Your task to perform on an android device: add a contact Image 0: 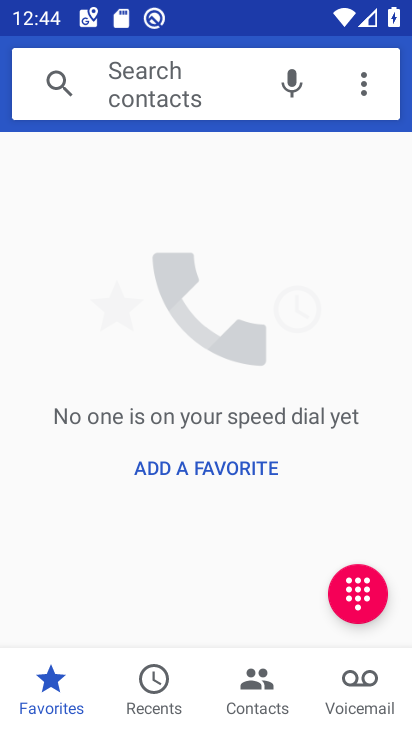
Step 0: press home button
Your task to perform on an android device: add a contact Image 1: 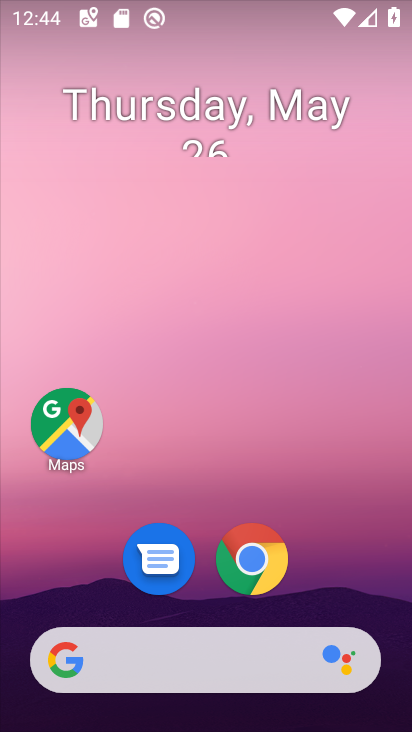
Step 1: drag from (326, 610) to (316, 90)
Your task to perform on an android device: add a contact Image 2: 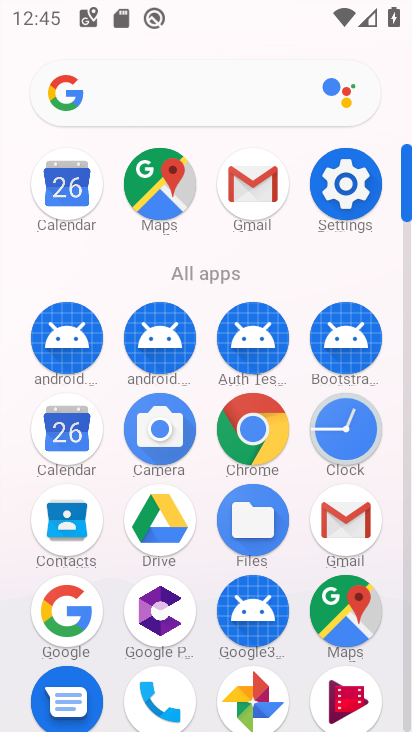
Step 2: click (54, 529)
Your task to perform on an android device: add a contact Image 3: 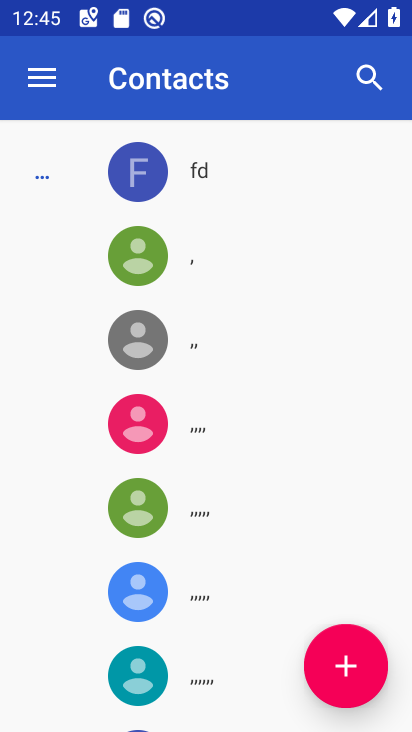
Step 3: click (350, 679)
Your task to perform on an android device: add a contact Image 4: 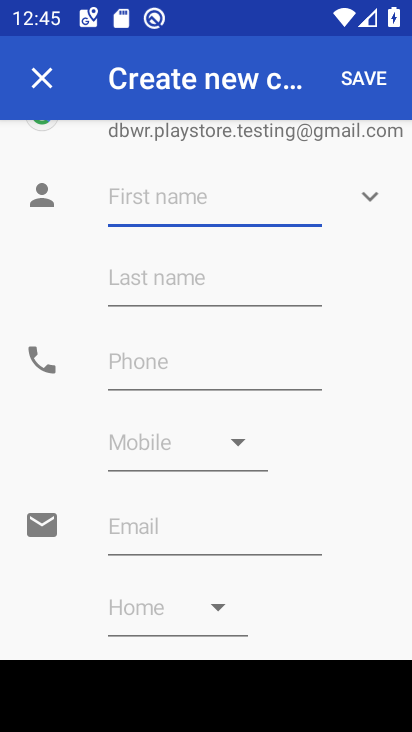
Step 4: type "gjgjgjgj"
Your task to perform on an android device: add a contact Image 5: 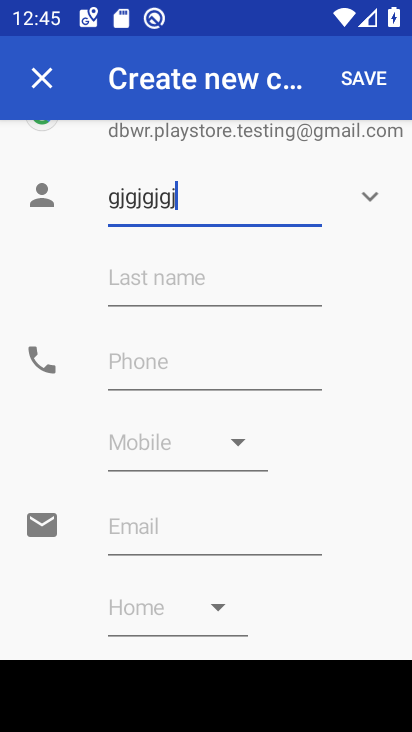
Step 5: click (189, 359)
Your task to perform on an android device: add a contact Image 6: 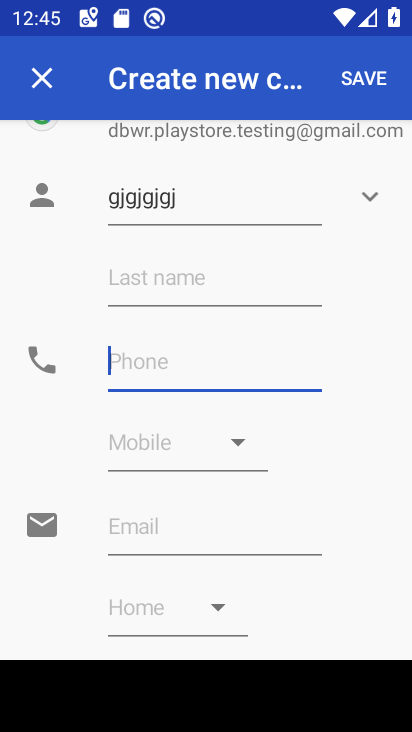
Step 6: type "6768686"
Your task to perform on an android device: add a contact Image 7: 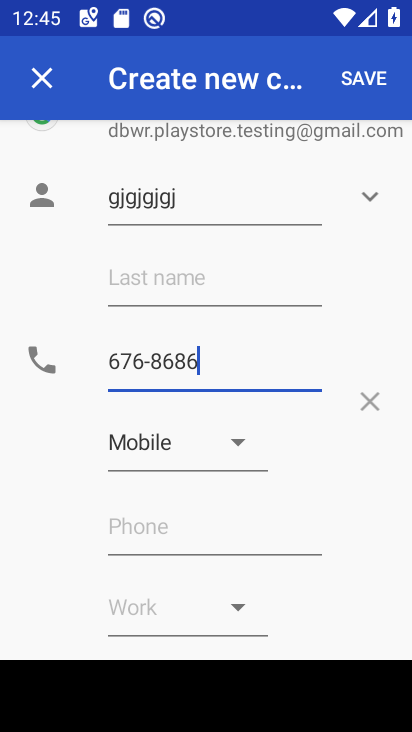
Step 7: click (368, 76)
Your task to perform on an android device: add a contact Image 8: 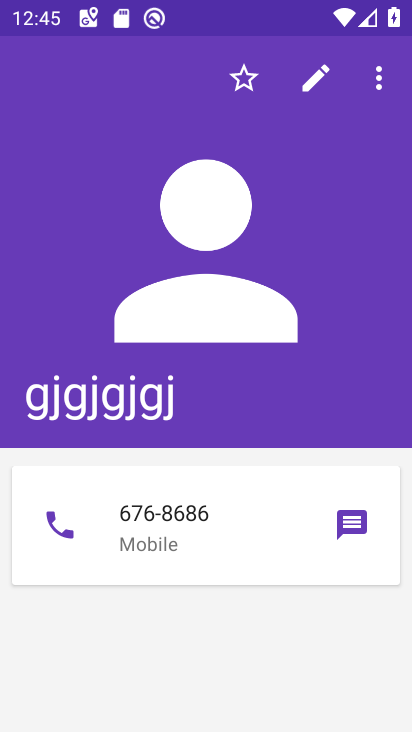
Step 8: task complete